Your task to perform on an android device: toggle translation in the chrome app Image 0: 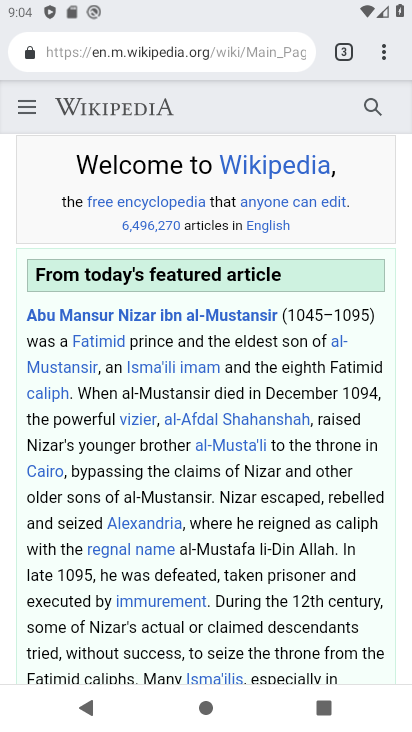
Step 0: click (386, 50)
Your task to perform on an android device: toggle translation in the chrome app Image 1: 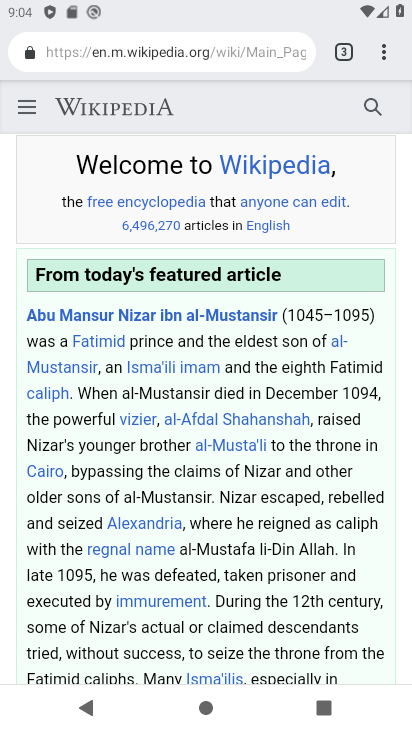
Step 1: click (386, 51)
Your task to perform on an android device: toggle translation in the chrome app Image 2: 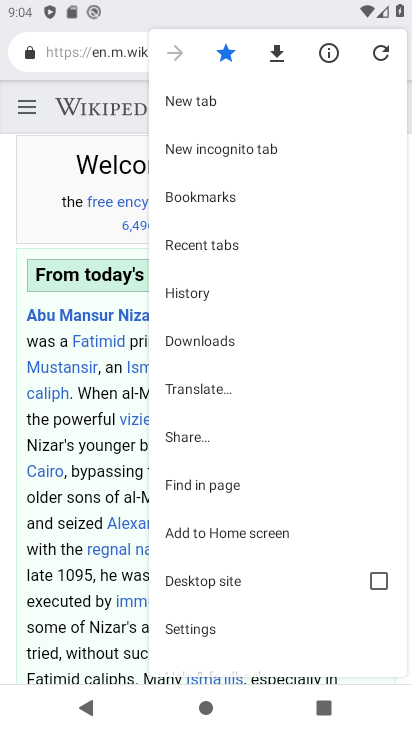
Step 2: click (246, 625)
Your task to perform on an android device: toggle translation in the chrome app Image 3: 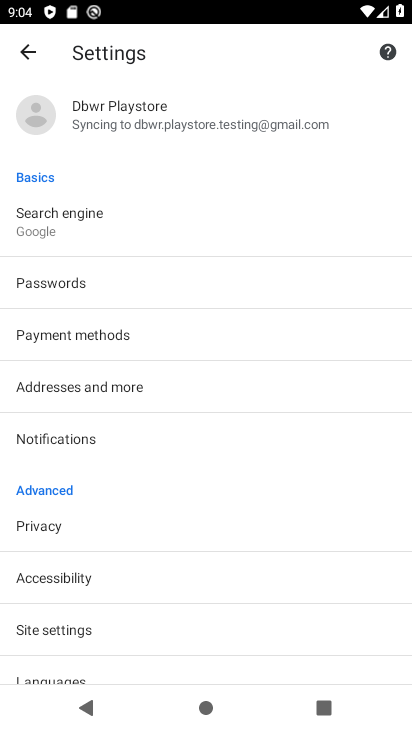
Step 3: drag from (205, 609) to (193, 392)
Your task to perform on an android device: toggle translation in the chrome app Image 4: 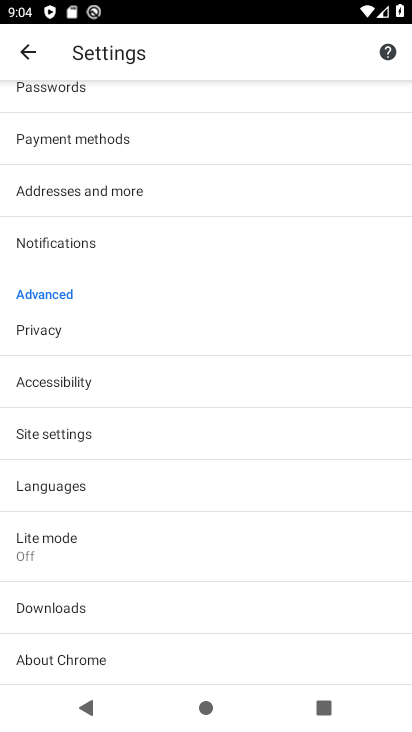
Step 4: click (169, 480)
Your task to perform on an android device: toggle translation in the chrome app Image 5: 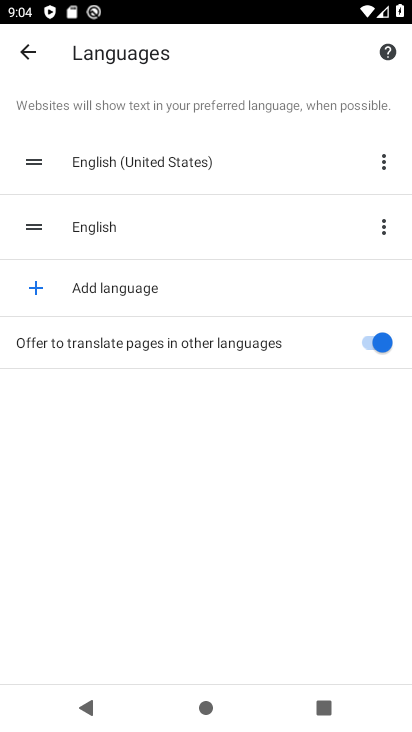
Step 5: click (363, 343)
Your task to perform on an android device: toggle translation in the chrome app Image 6: 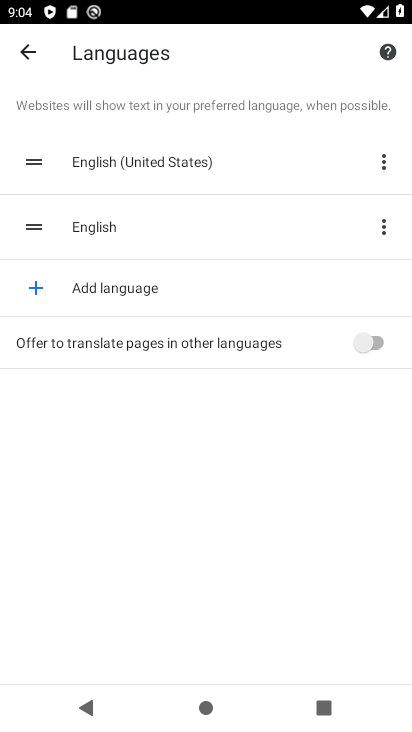
Step 6: task complete